Your task to perform on an android device: Open maps Image 0: 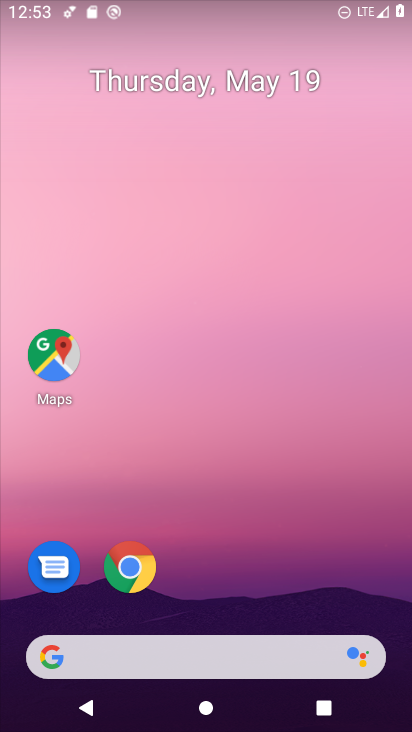
Step 0: click (59, 357)
Your task to perform on an android device: Open maps Image 1: 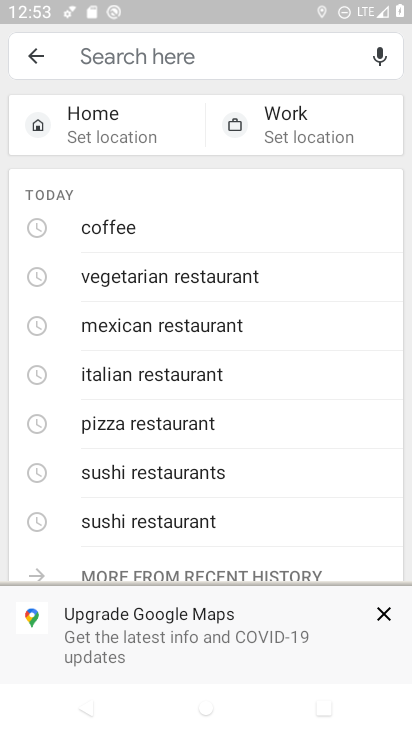
Step 1: click (36, 47)
Your task to perform on an android device: Open maps Image 2: 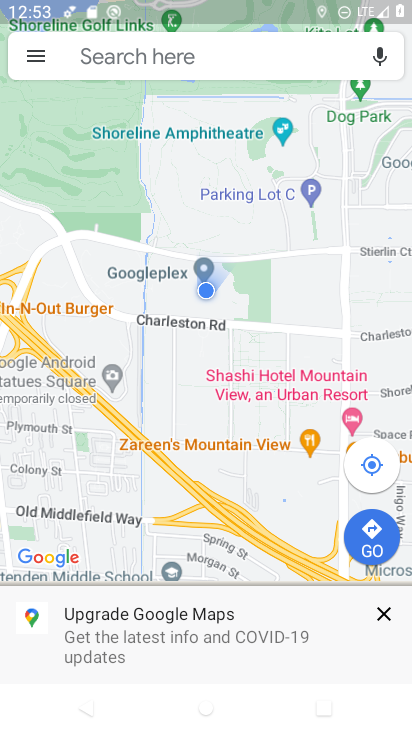
Step 2: task complete